Your task to perform on an android device: View the shopping cart on amazon. Image 0: 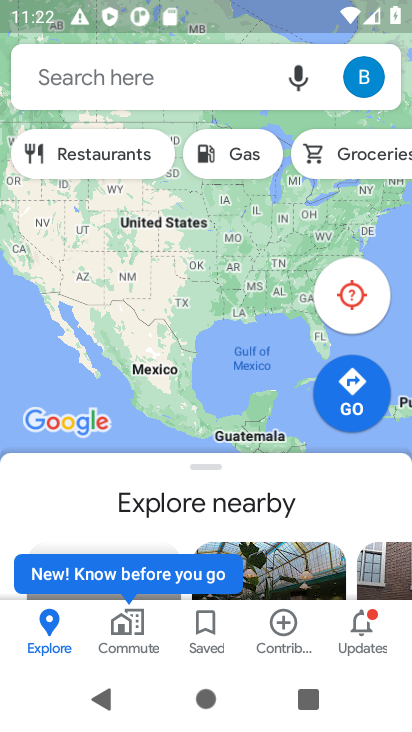
Step 0: press home button
Your task to perform on an android device: View the shopping cart on amazon. Image 1: 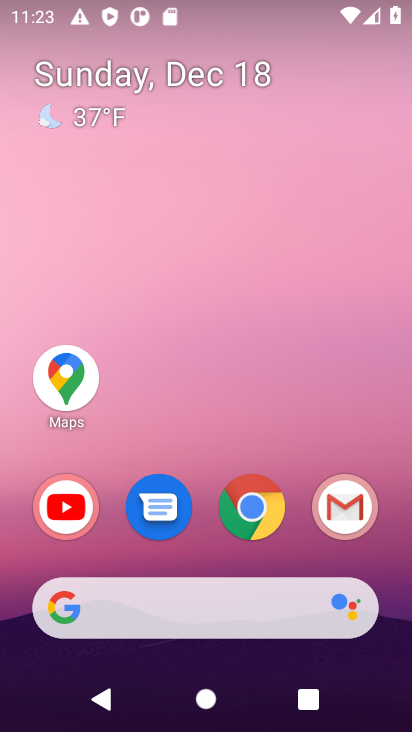
Step 1: click (262, 513)
Your task to perform on an android device: View the shopping cart on amazon. Image 2: 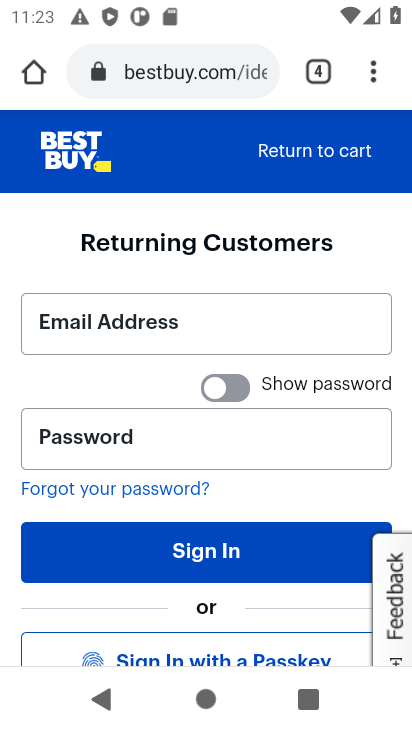
Step 2: click (162, 80)
Your task to perform on an android device: View the shopping cart on amazon. Image 3: 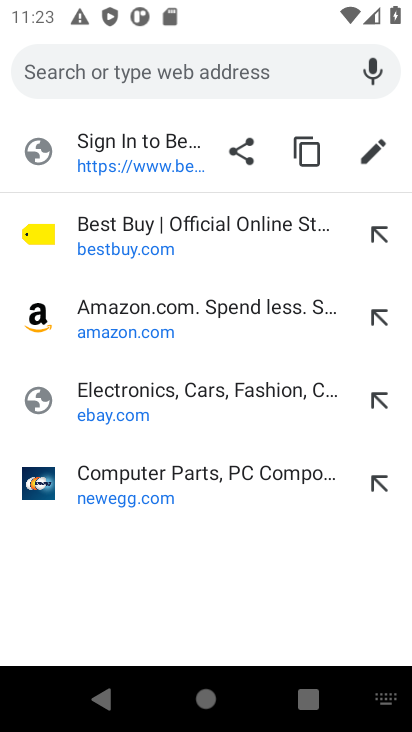
Step 3: click (100, 336)
Your task to perform on an android device: View the shopping cart on amazon. Image 4: 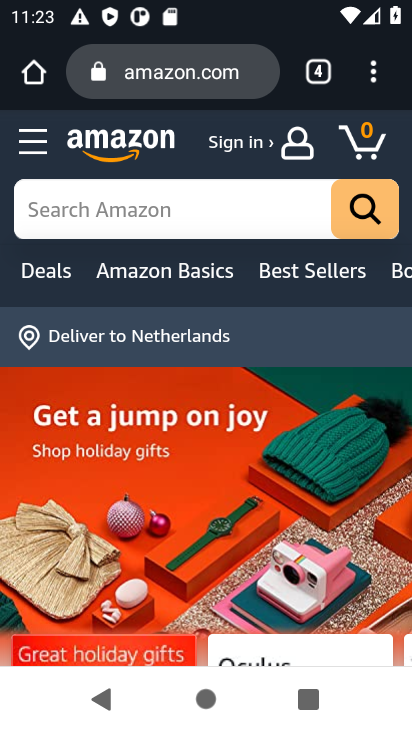
Step 4: click (384, 134)
Your task to perform on an android device: View the shopping cart on amazon. Image 5: 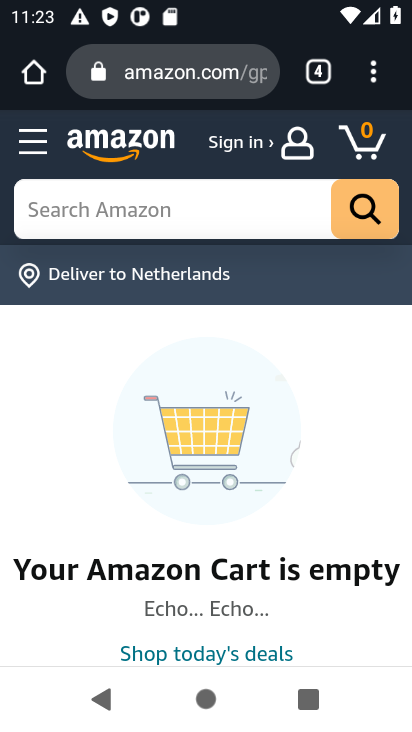
Step 5: task complete